Your task to perform on an android device: Find coffee shops on Maps Image 0: 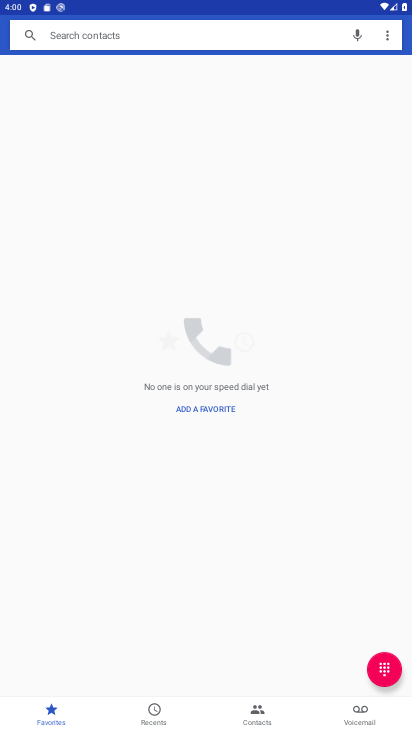
Step 0: press home button
Your task to perform on an android device: Find coffee shops on Maps Image 1: 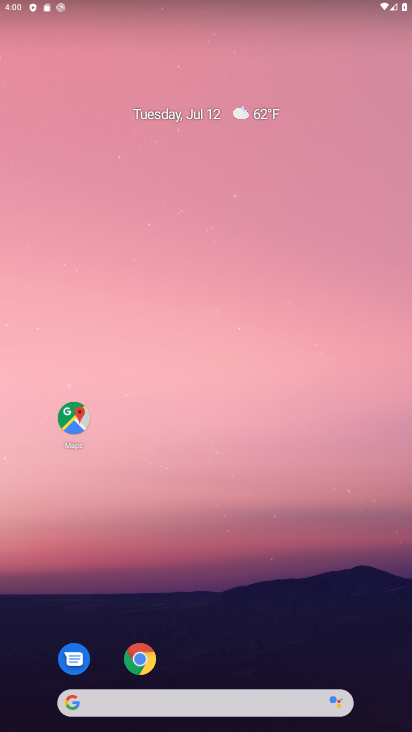
Step 1: click (70, 408)
Your task to perform on an android device: Find coffee shops on Maps Image 2: 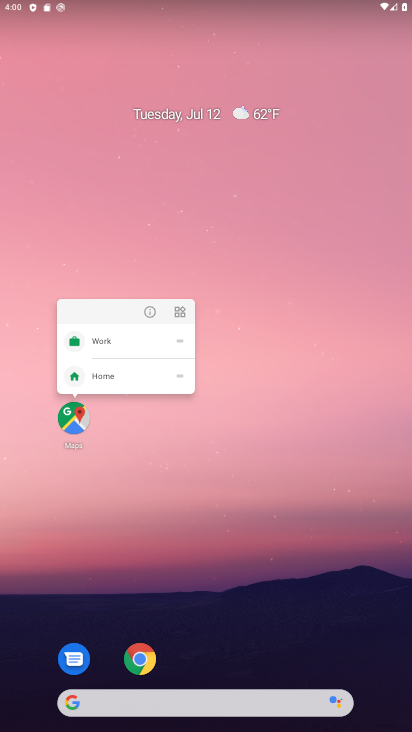
Step 2: click (65, 417)
Your task to perform on an android device: Find coffee shops on Maps Image 3: 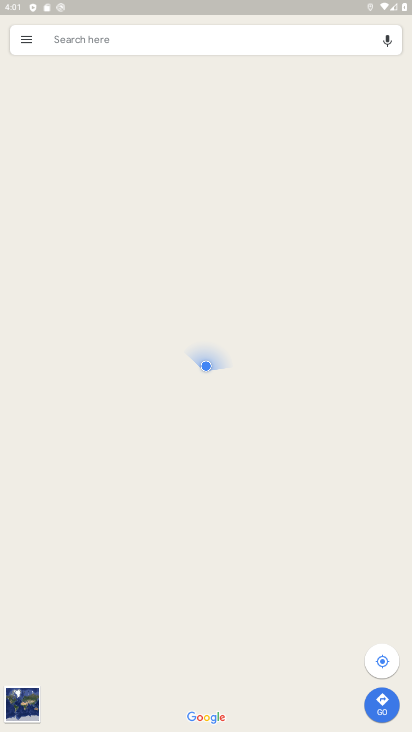
Step 3: click (108, 29)
Your task to perform on an android device: Find coffee shops on Maps Image 4: 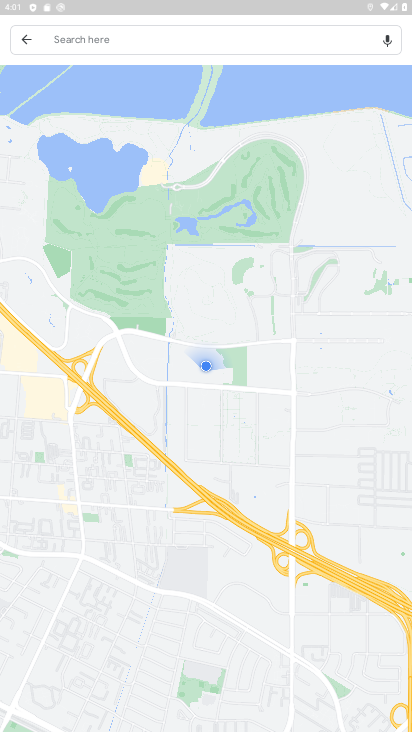
Step 4: click (22, 33)
Your task to perform on an android device: Find coffee shops on Maps Image 5: 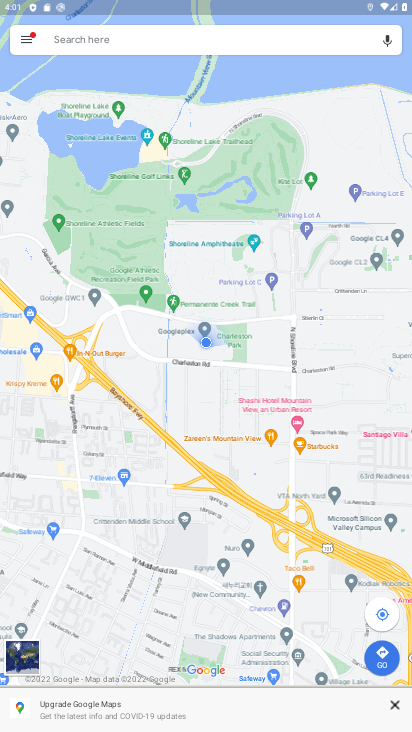
Step 5: click (98, 47)
Your task to perform on an android device: Find coffee shops on Maps Image 6: 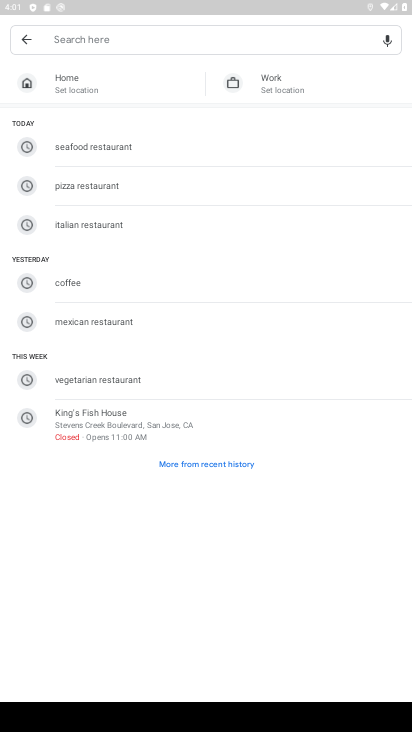
Step 6: click (90, 281)
Your task to perform on an android device: Find coffee shops on Maps Image 7: 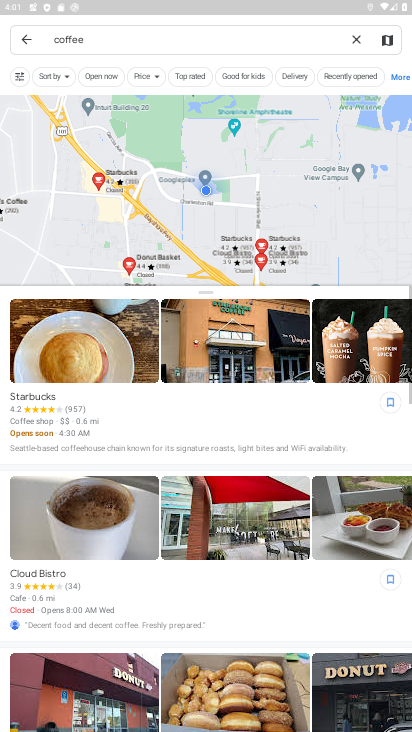
Step 7: task complete